Your task to perform on an android device: stop showing notifications on the lock screen Image 0: 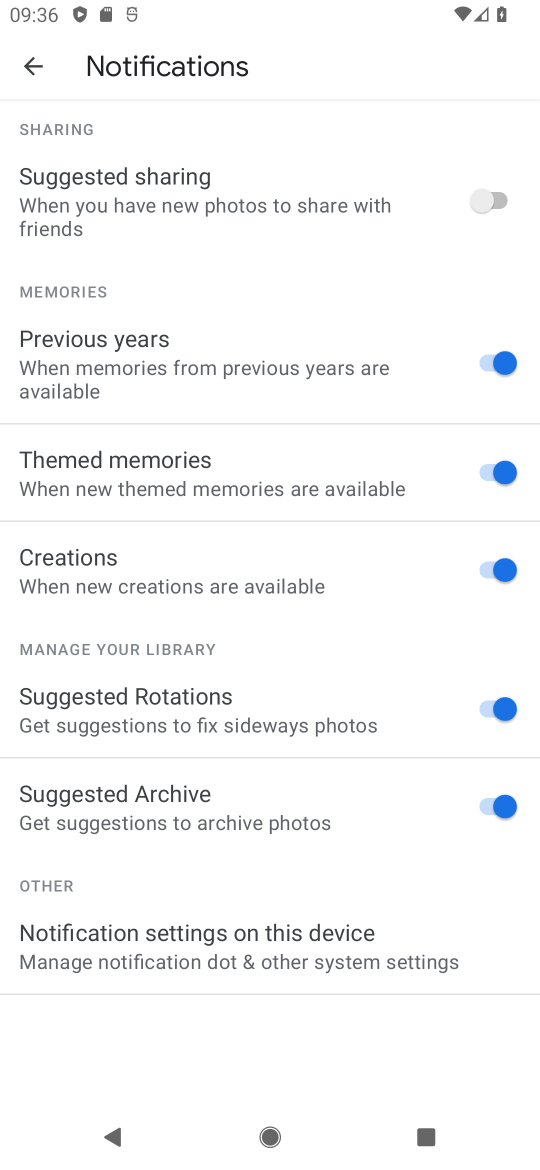
Step 0: press home button
Your task to perform on an android device: stop showing notifications on the lock screen Image 1: 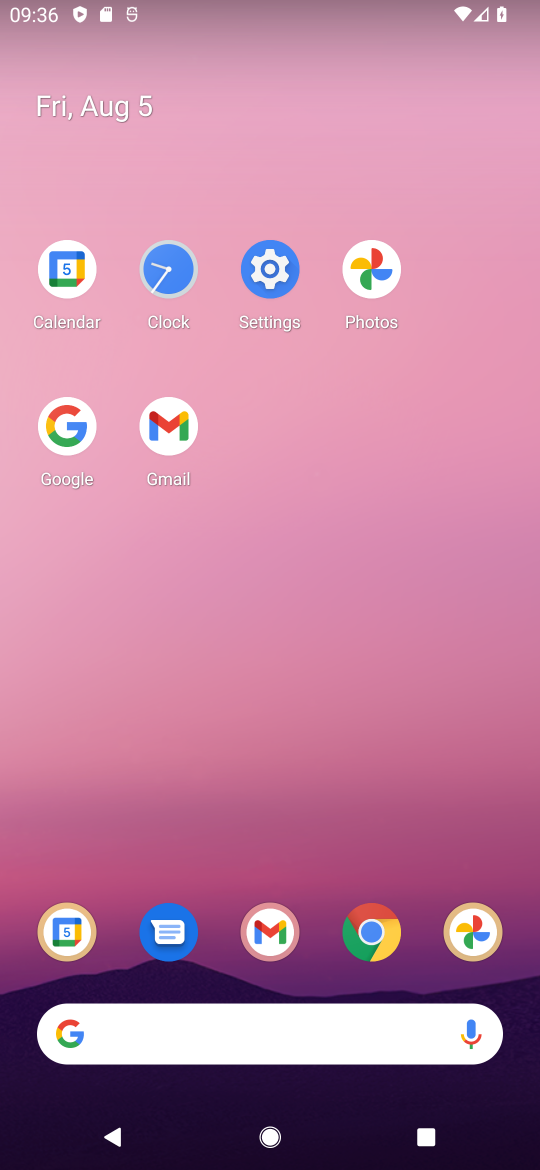
Step 1: click (250, 266)
Your task to perform on an android device: stop showing notifications on the lock screen Image 2: 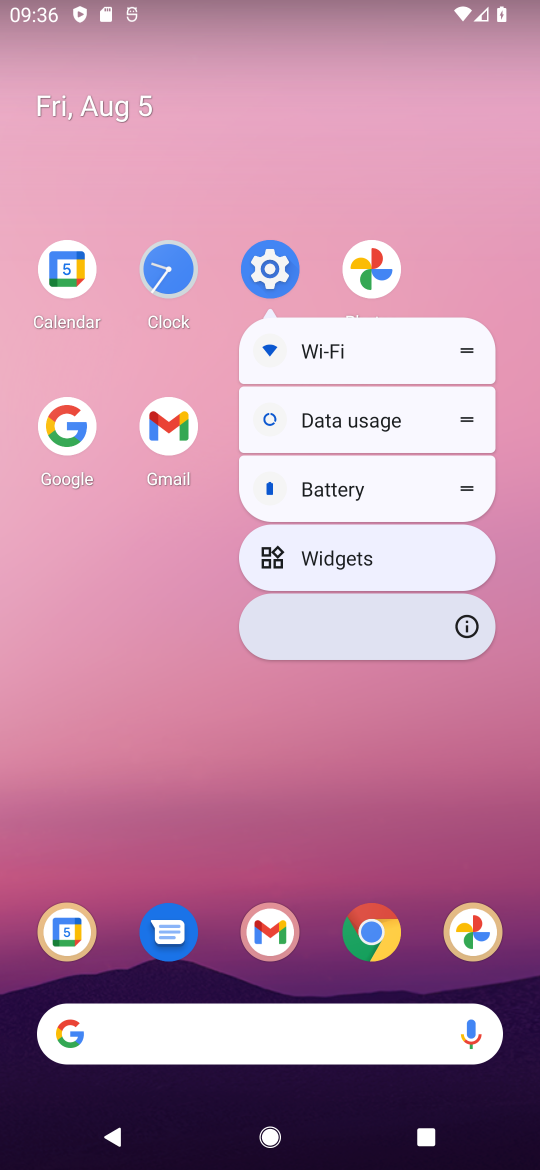
Step 2: click (250, 266)
Your task to perform on an android device: stop showing notifications on the lock screen Image 3: 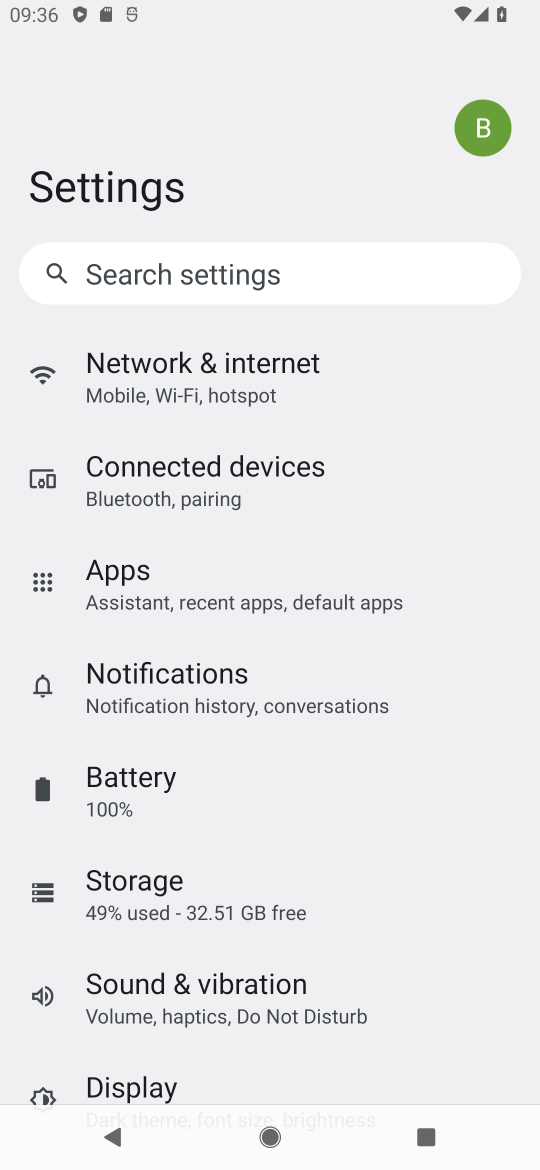
Step 3: click (195, 657)
Your task to perform on an android device: stop showing notifications on the lock screen Image 4: 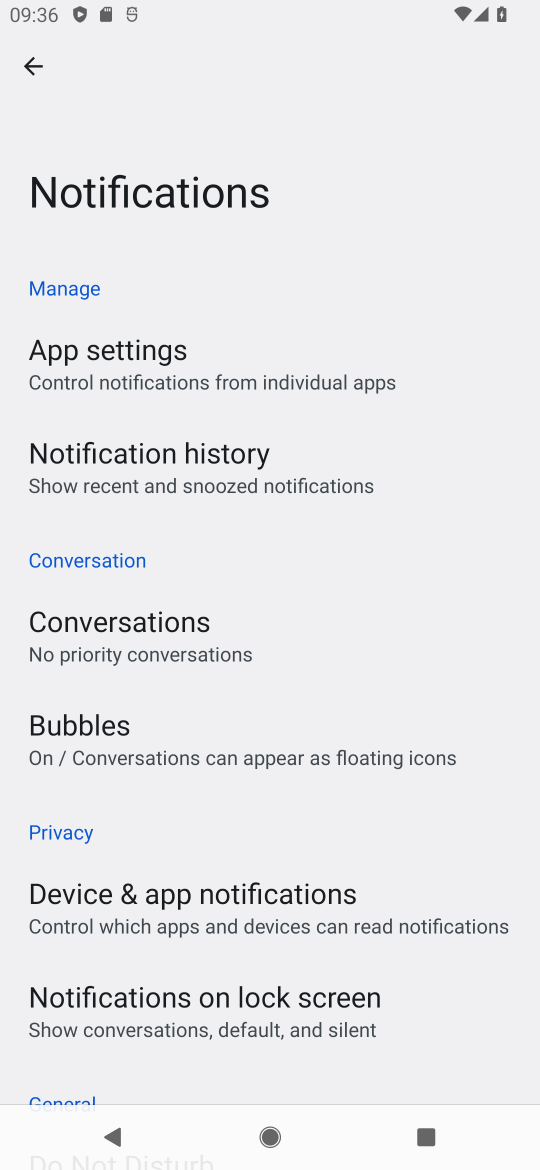
Step 4: drag from (239, 691) to (270, 423)
Your task to perform on an android device: stop showing notifications on the lock screen Image 5: 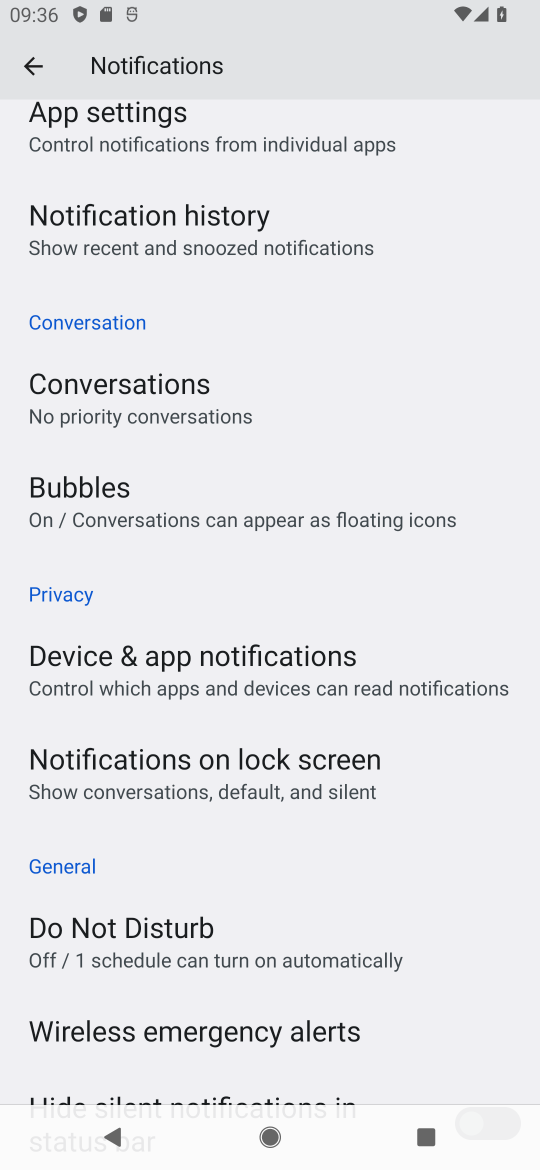
Step 5: drag from (299, 833) to (312, 322)
Your task to perform on an android device: stop showing notifications on the lock screen Image 6: 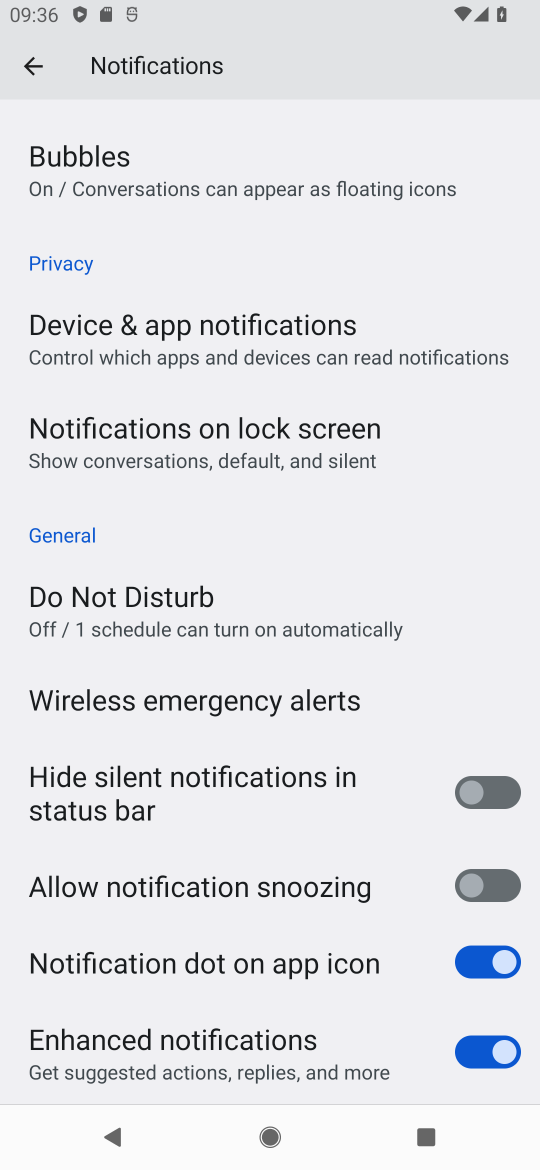
Step 6: click (330, 414)
Your task to perform on an android device: stop showing notifications on the lock screen Image 7: 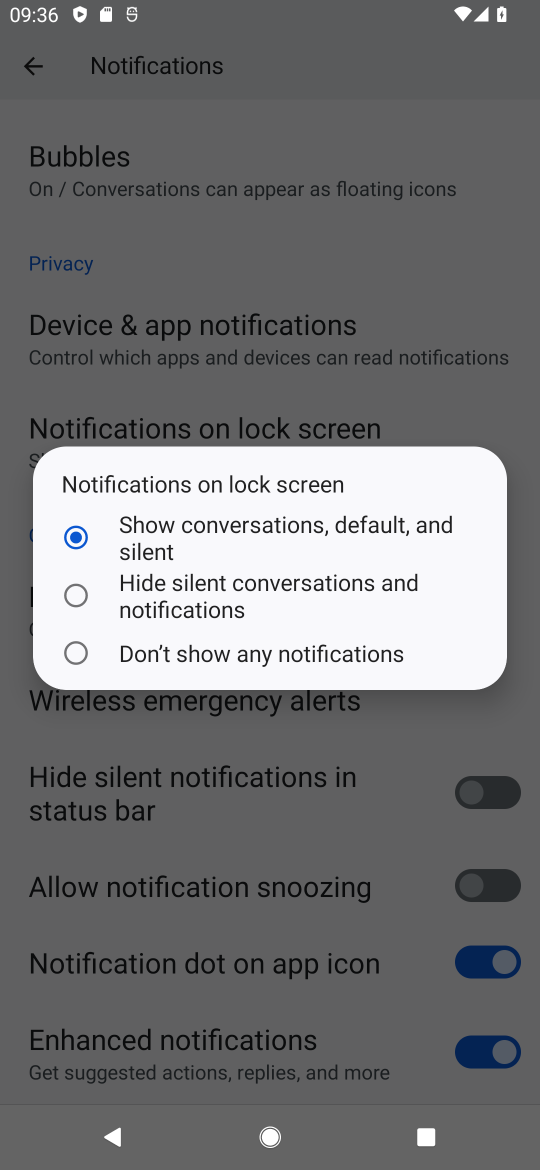
Step 7: click (252, 659)
Your task to perform on an android device: stop showing notifications on the lock screen Image 8: 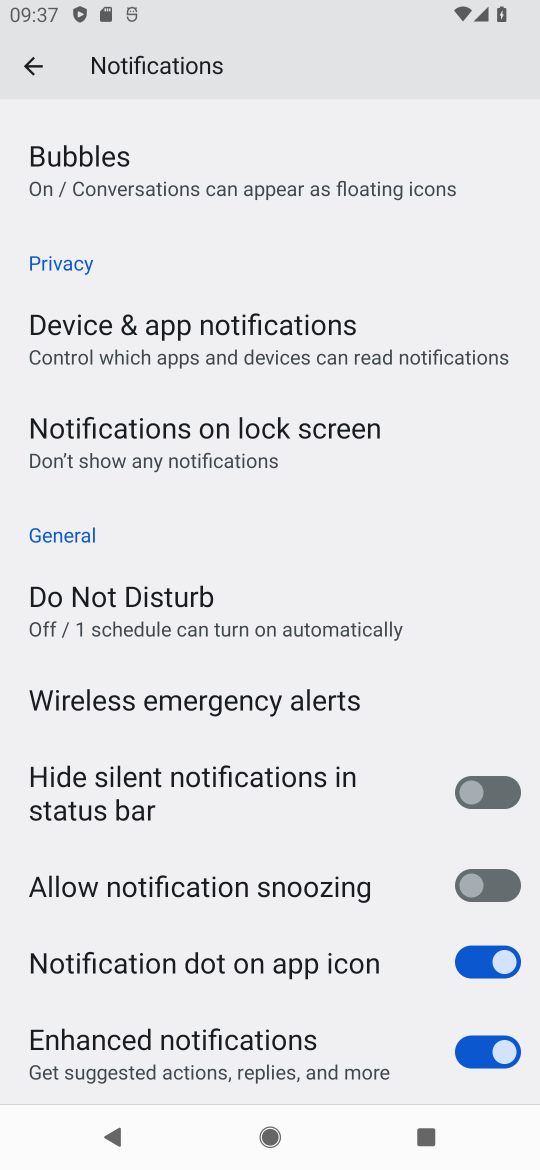
Step 8: task complete